Your task to perform on an android device: Is it going to rain this weekend? Image 0: 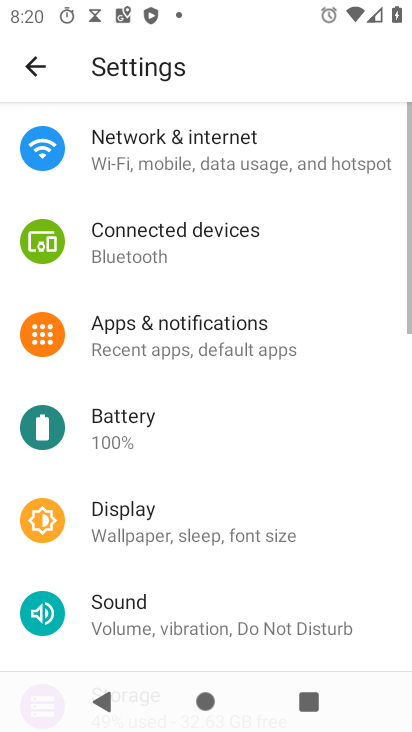
Step 0: press home button
Your task to perform on an android device: Is it going to rain this weekend? Image 1: 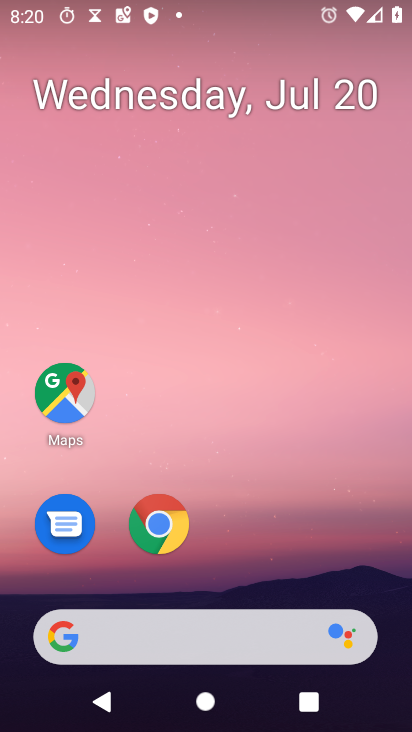
Step 1: click (130, 640)
Your task to perform on an android device: Is it going to rain this weekend? Image 2: 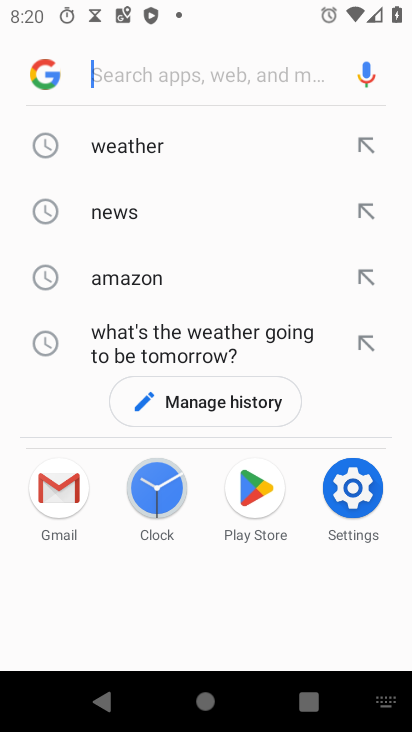
Step 2: click (141, 143)
Your task to perform on an android device: Is it going to rain this weekend? Image 3: 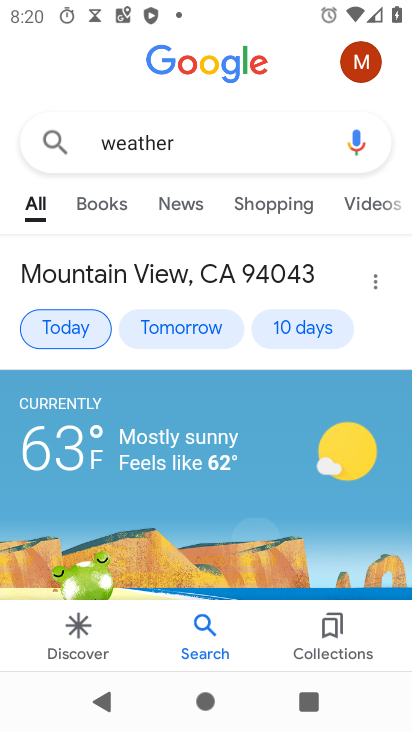
Step 3: click (313, 335)
Your task to perform on an android device: Is it going to rain this weekend? Image 4: 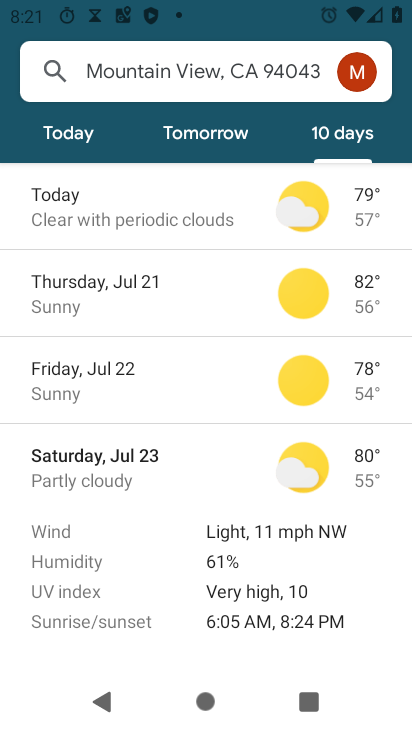
Step 4: task complete